Your task to perform on an android device: Search for Italian restaurants on Maps Image 0: 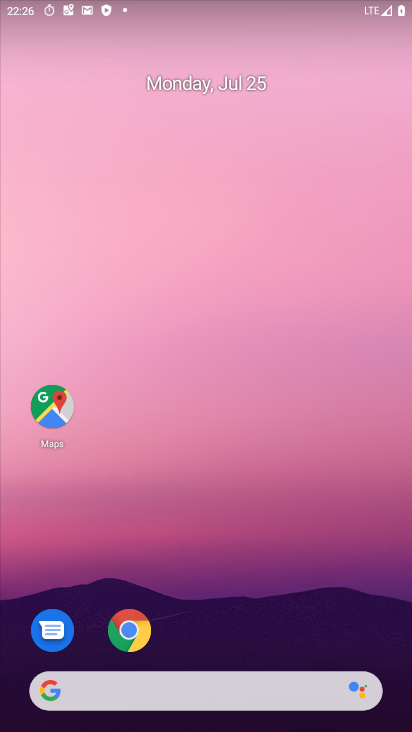
Step 0: click (52, 397)
Your task to perform on an android device: Search for Italian restaurants on Maps Image 1: 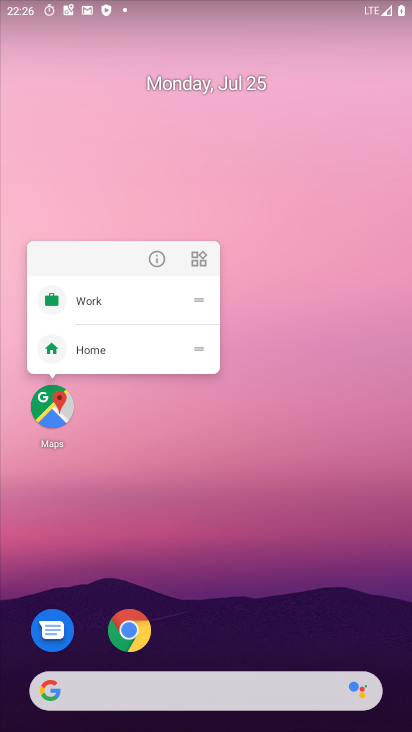
Step 1: click (52, 398)
Your task to perform on an android device: Search for Italian restaurants on Maps Image 2: 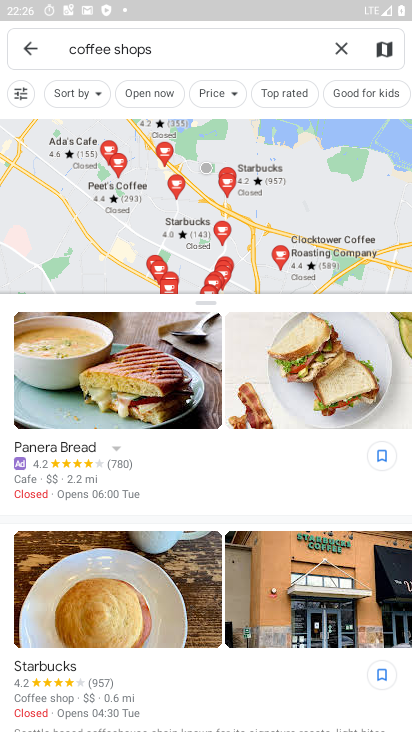
Step 2: click (215, 40)
Your task to perform on an android device: Search for Italian restaurants on Maps Image 3: 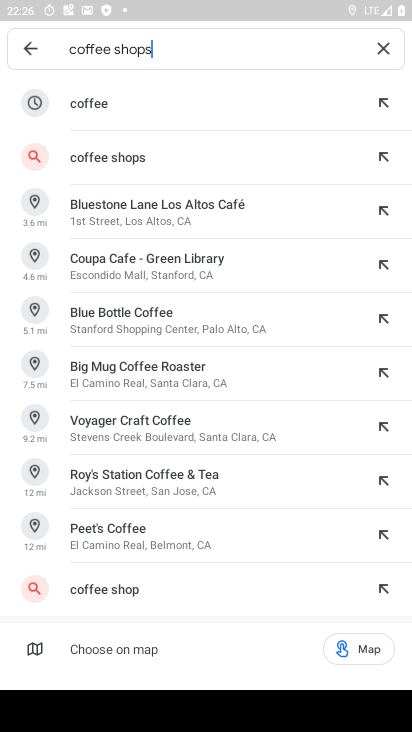
Step 3: click (24, 46)
Your task to perform on an android device: Search for Italian restaurants on Maps Image 4: 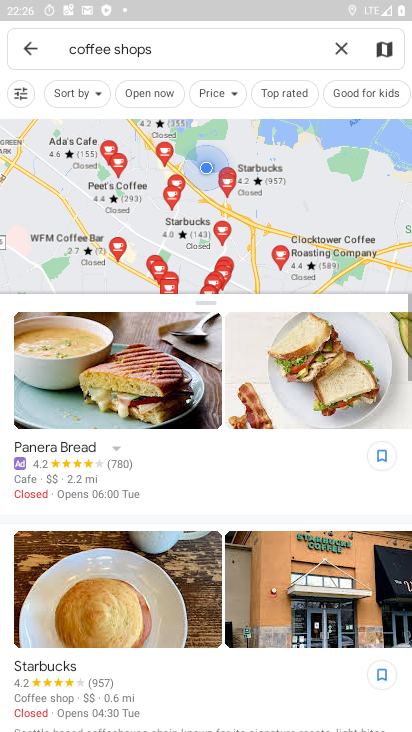
Step 4: click (27, 47)
Your task to perform on an android device: Search for Italian restaurants on Maps Image 5: 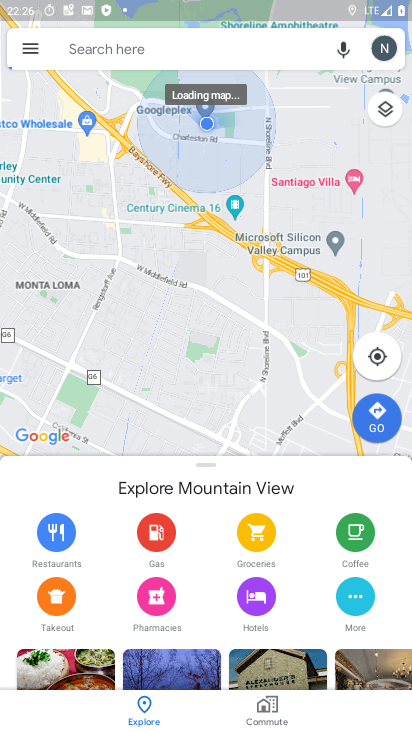
Step 5: type "Italian restaurants "
Your task to perform on an android device: Search for Italian restaurants on Maps Image 6: 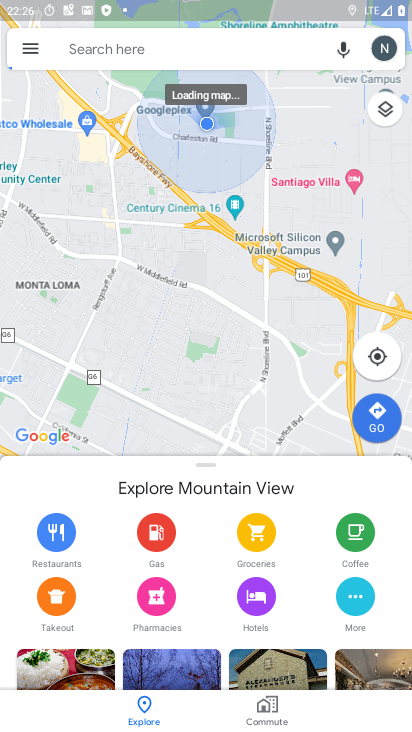
Step 6: click (141, 42)
Your task to perform on an android device: Search for Italian restaurants on Maps Image 7: 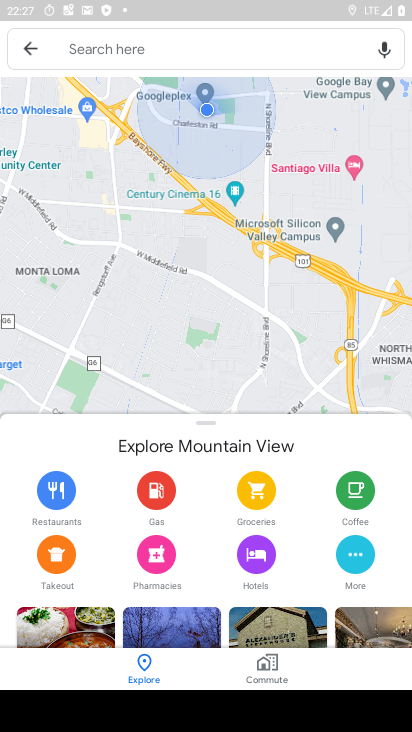
Step 7: click (116, 49)
Your task to perform on an android device: Search for Italian restaurants on Maps Image 8: 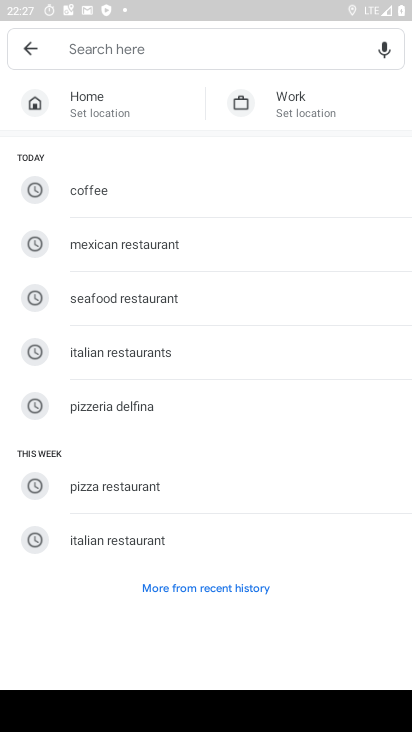
Step 8: click (120, 354)
Your task to perform on an android device: Search for Italian restaurants on Maps Image 9: 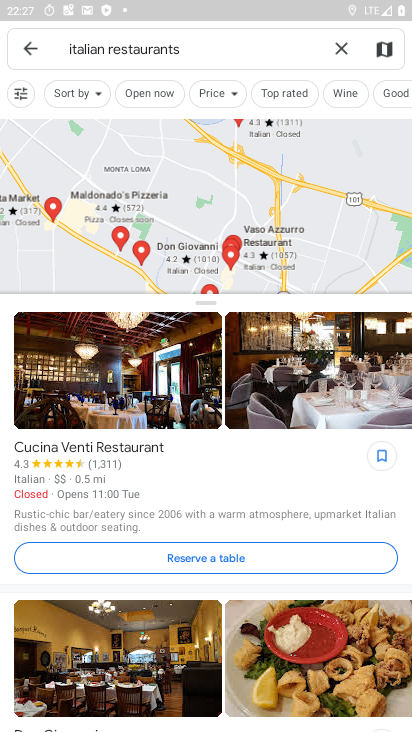
Step 9: task complete